Your task to perform on an android device: open device folders in google photos Image 0: 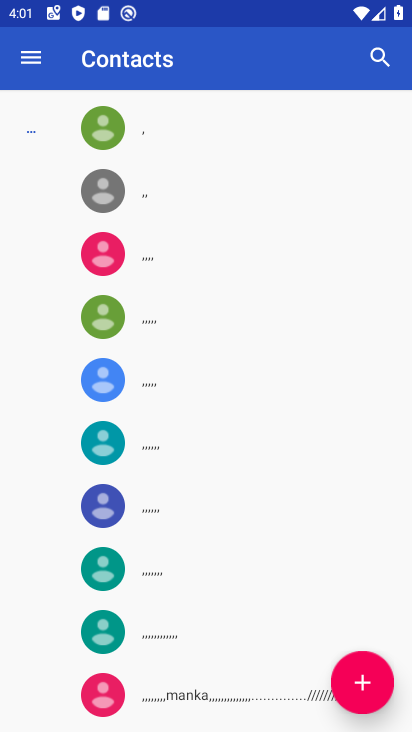
Step 0: press home button
Your task to perform on an android device: open device folders in google photos Image 1: 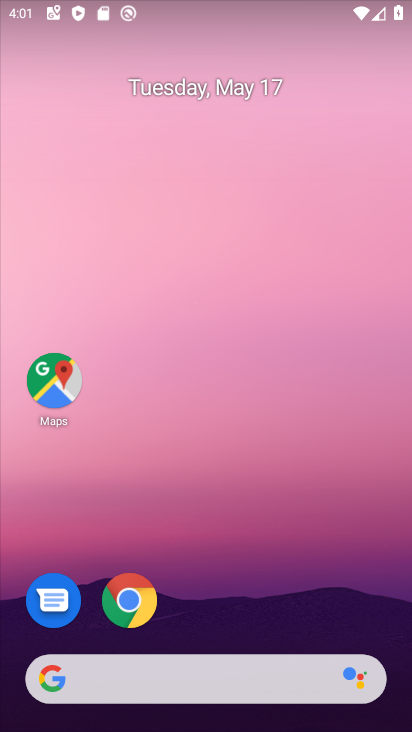
Step 1: drag from (235, 617) to (348, 119)
Your task to perform on an android device: open device folders in google photos Image 2: 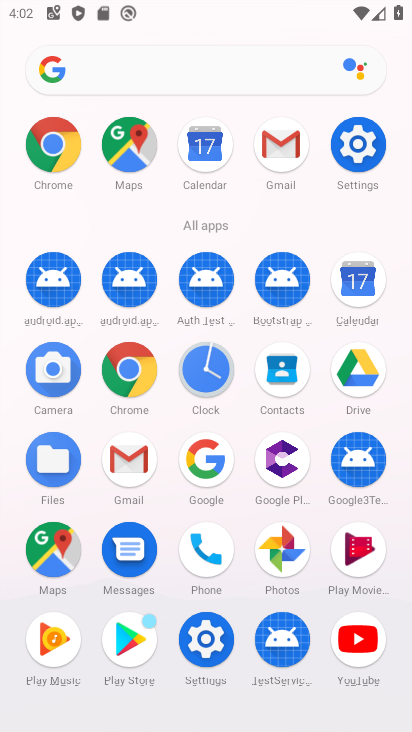
Step 2: click (283, 566)
Your task to perform on an android device: open device folders in google photos Image 3: 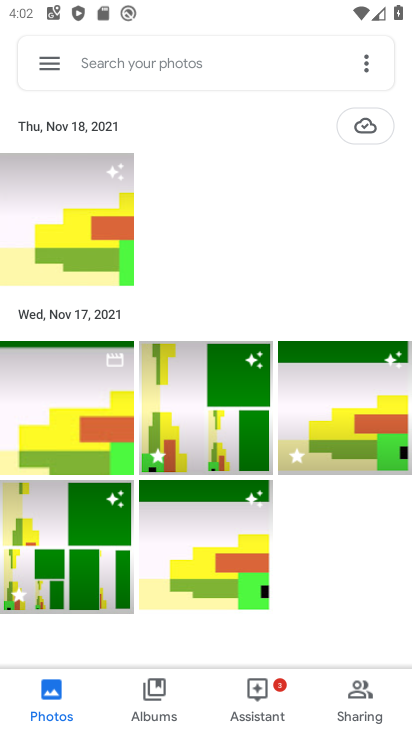
Step 3: click (55, 64)
Your task to perform on an android device: open device folders in google photos Image 4: 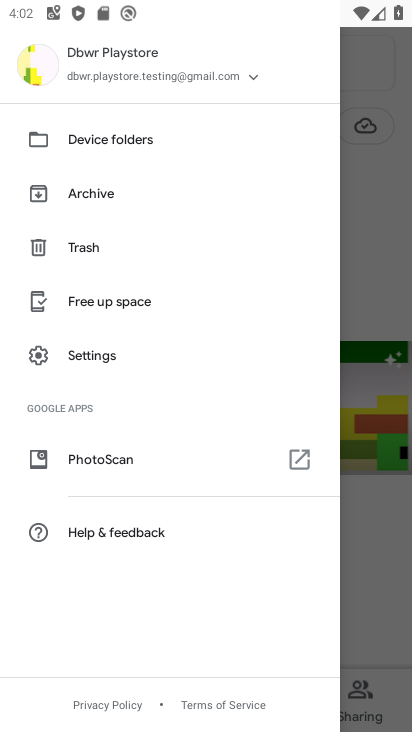
Step 4: click (107, 144)
Your task to perform on an android device: open device folders in google photos Image 5: 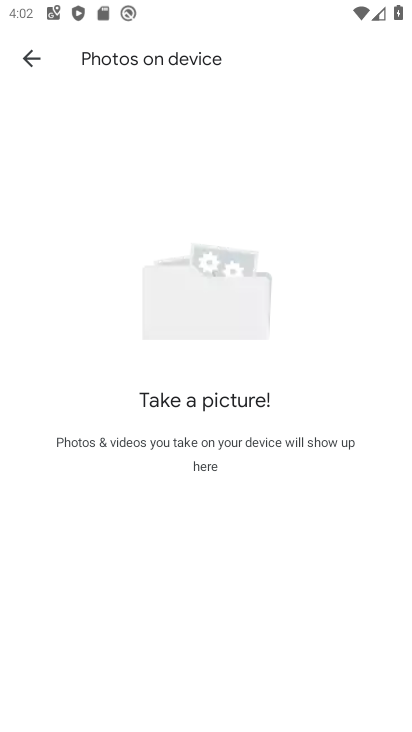
Step 5: task complete